Your task to perform on an android device: Clear the cart on walmart.com. Add "usb-a to usb-b" to the cart on walmart.com Image 0: 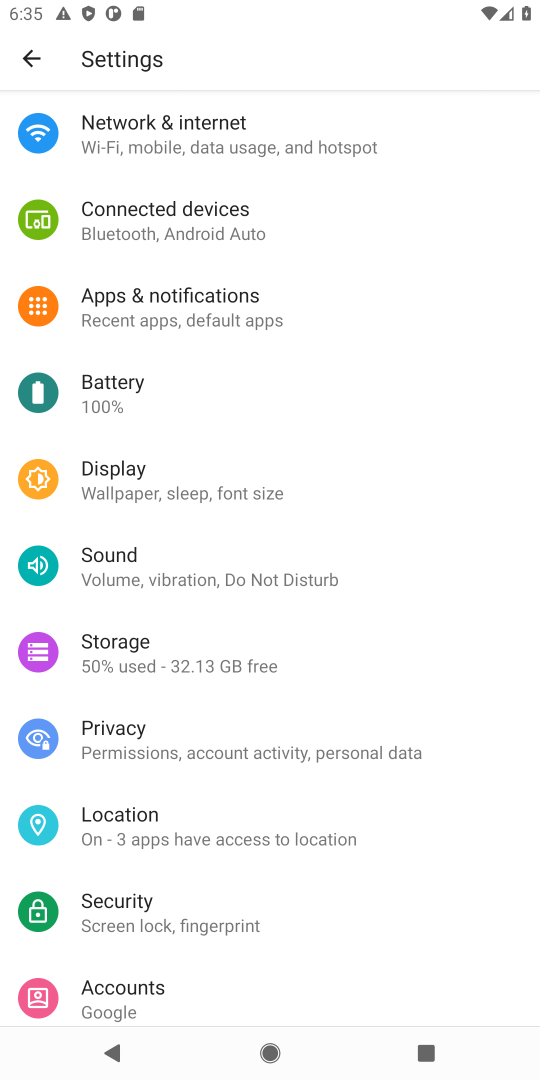
Step 0: press home button
Your task to perform on an android device: Clear the cart on walmart.com. Add "usb-a to usb-b" to the cart on walmart.com Image 1: 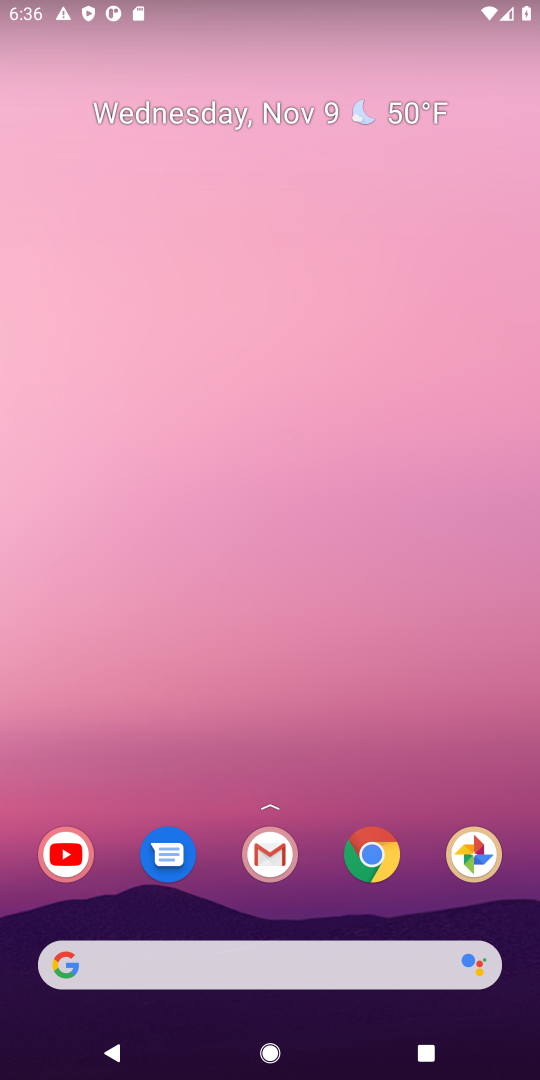
Step 1: click (264, 955)
Your task to perform on an android device: Clear the cart on walmart.com. Add "usb-a to usb-b" to the cart on walmart.com Image 2: 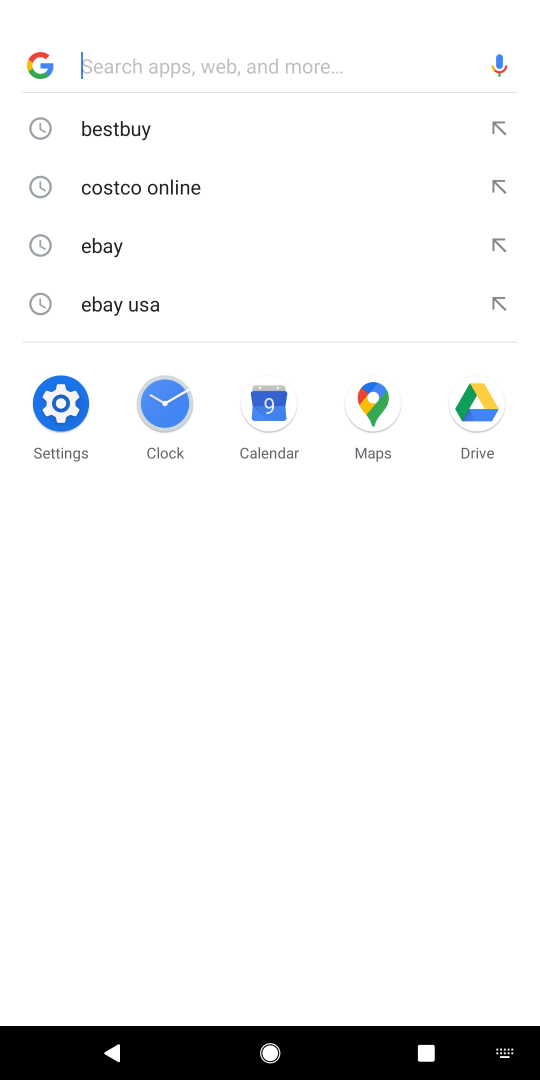
Step 2: type "walmart"
Your task to perform on an android device: Clear the cart on walmart.com. Add "usb-a to usb-b" to the cart on walmart.com Image 3: 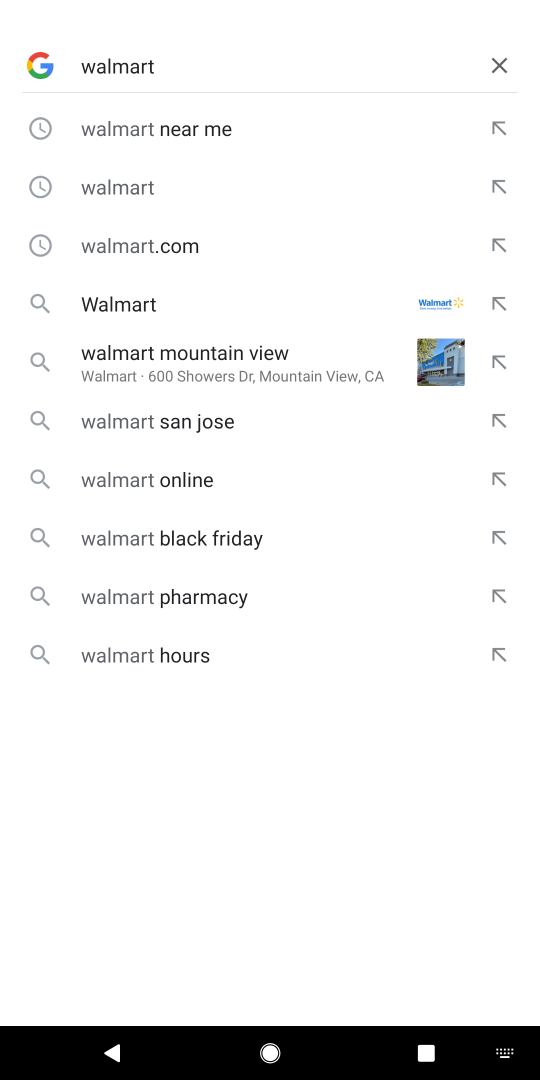
Step 3: click (121, 175)
Your task to perform on an android device: Clear the cart on walmart.com. Add "usb-a to usb-b" to the cart on walmart.com Image 4: 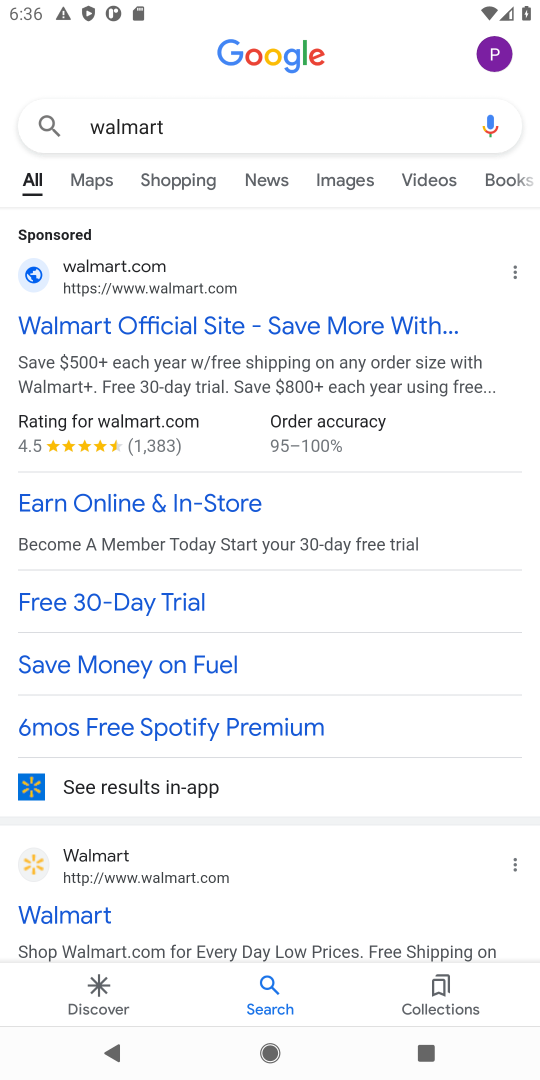
Step 4: click (242, 319)
Your task to perform on an android device: Clear the cart on walmart.com. Add "usb-a to usb-b" to the cart on walmart.com Image 5: 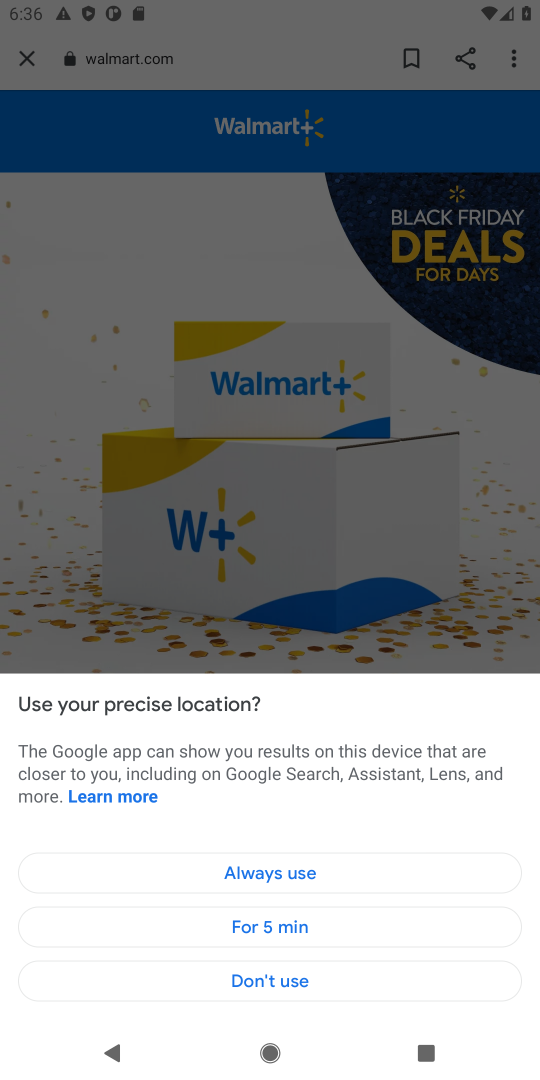
Step 5: click (329, 897)
Your task to perform on an android device: Clear the cart on walmart.com. Add "usb-a to usb-b" to the cart on walmart.com Image 6: 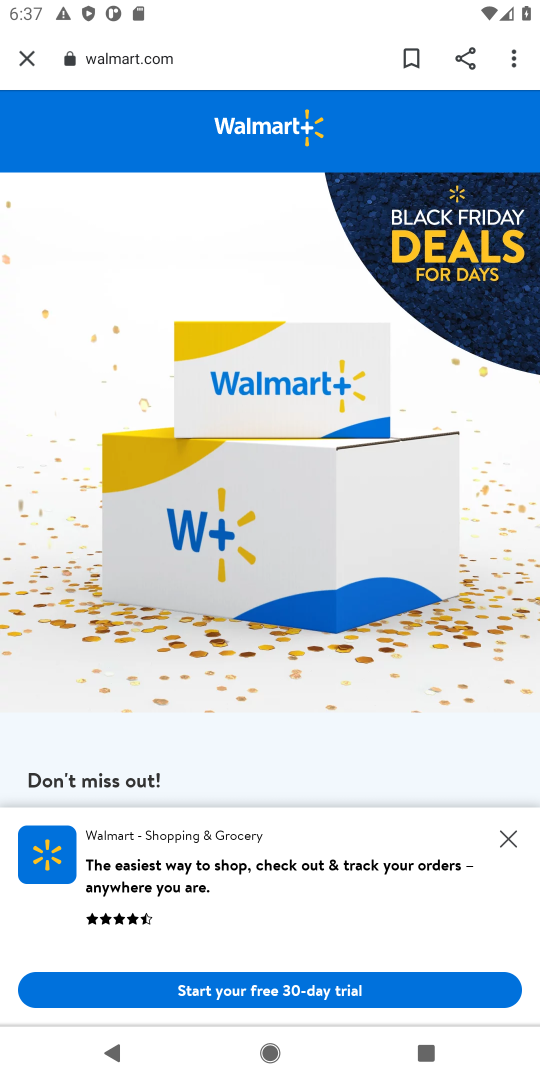
Step 6: task complete